Your task to perform on an android device: create a new album in the google photos Image 0: 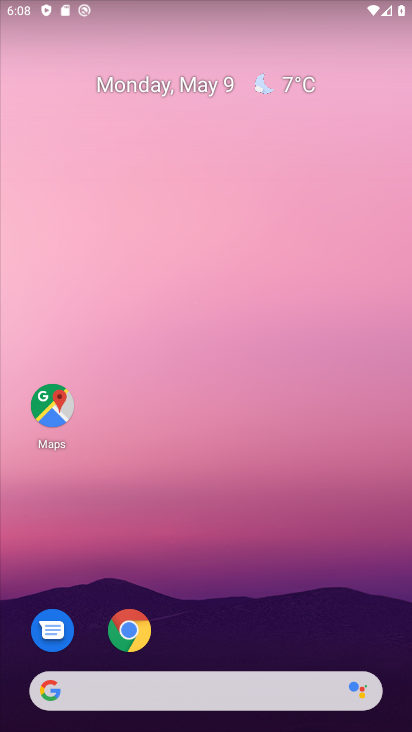
Step 0: drag from (233, 619) to (294, 219)
Your task to perform on an android device: create a new album in the google photos Image 1: 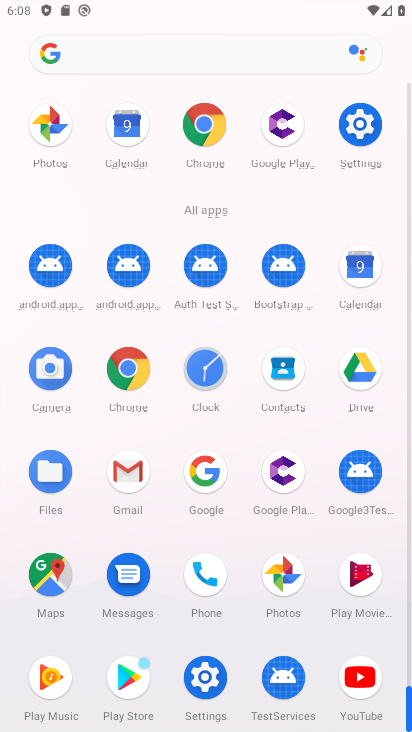
Step 1: click (281, 584)
Your task to perform on an android device: create a new album in the google photos Image 2: 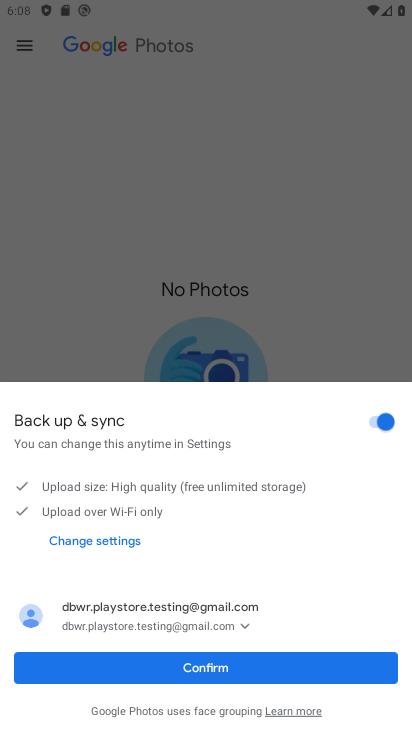
Step 2: click (239, 665)
Your task to perform on an android device: create a new album in the google photos Image 3: 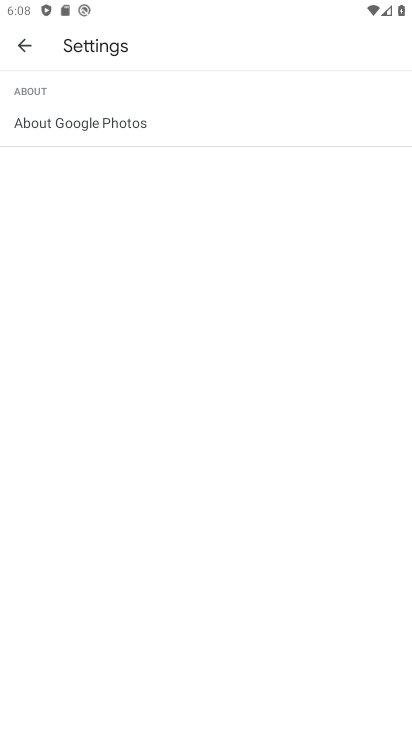
Step 3: click (24, 35)
Your task to perform on an android device: create a new album in the google photos Image 4: 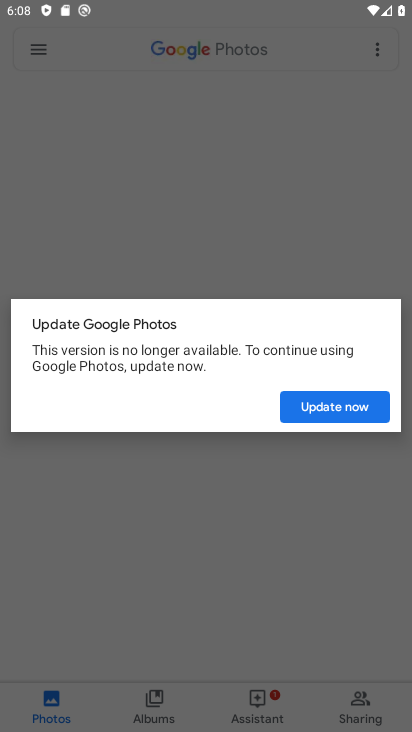
Step 4: click (143, 711)
Your task to perform on an android device: create a new album in the google photos Image 5: 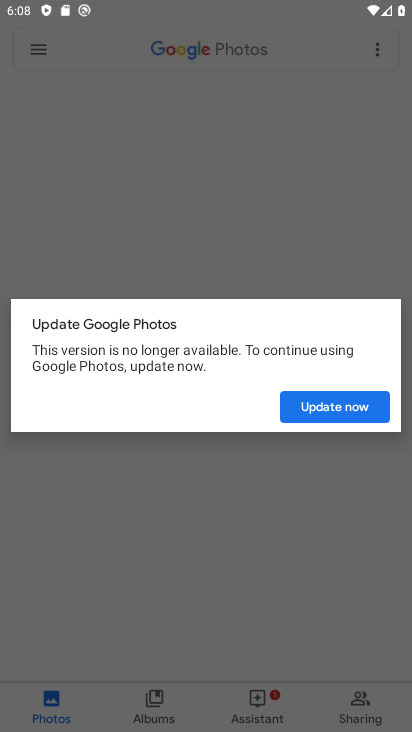
Step 5: click (143, 711)
Your task to perform on an android device: create a new album in the google photos Image 6: 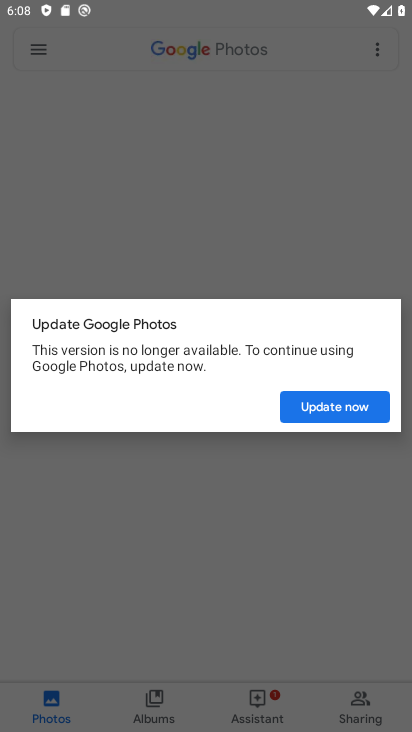
Step 6: click (334, 414)
Your task to perform on an android device: create a new album in the google photos Image 7: 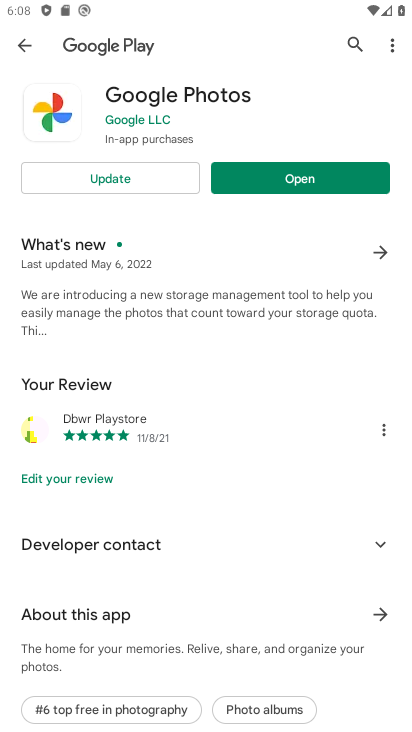
Step 7: click (288, 176)
Your task to perform on an android device: create a new album in the google photos Image 8: 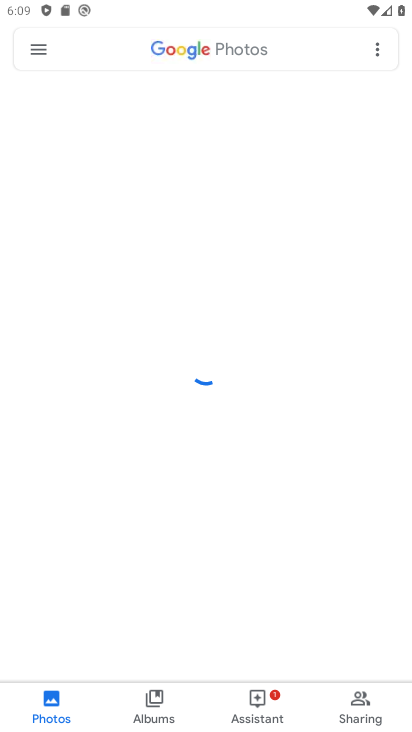
Step 8: click (154, 724)
Your task to perform on an android device: create a new album in the google photos Image 9: 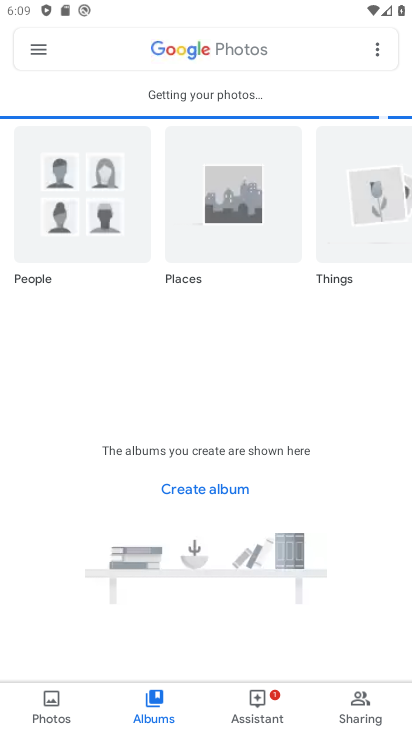
Step 9: click (192, 485)
Your task to perform on an android device: create a new album in the google photos Image 10: 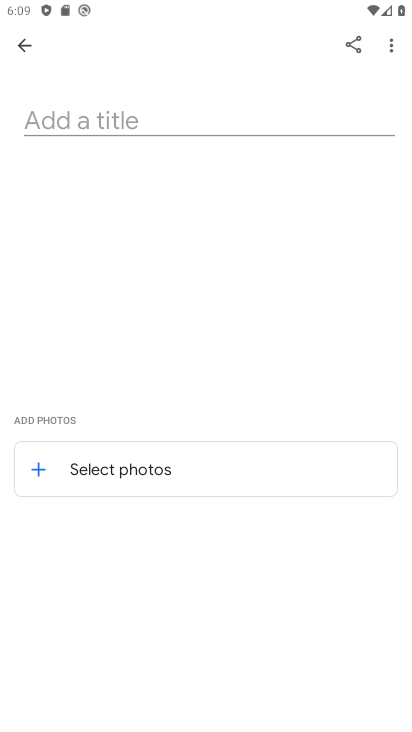
Step 10: click (116, 127)
Your task to perform on an android device: create a new album in the google photos Image 11: 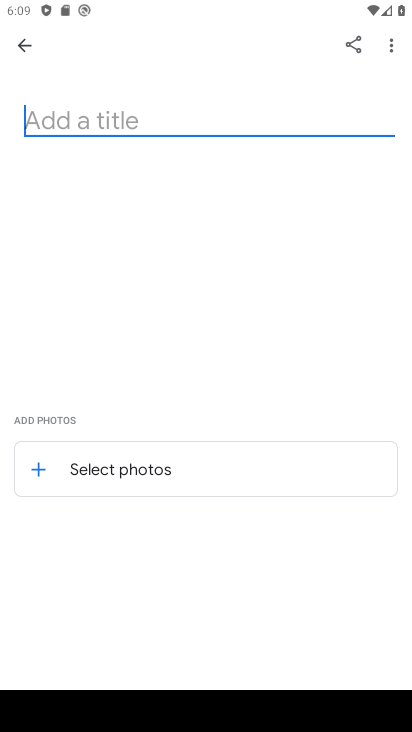
Step 11: type "Ashish"
Your task to perform on an android device: create a new album in the google photos Image 12: 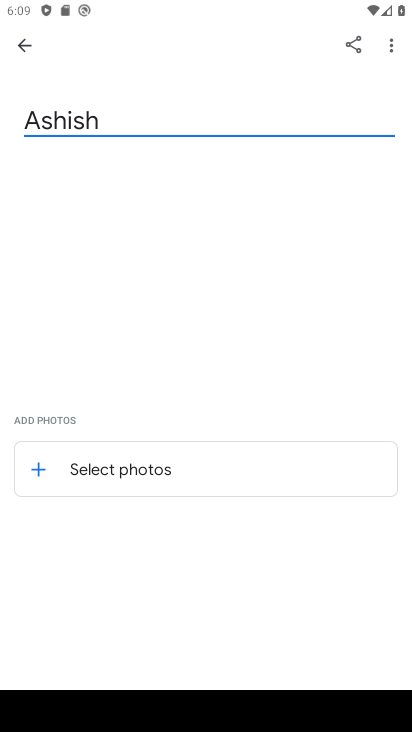
Step 12: click (151, 490)
Your task to perform on an android device: create a new album in the google photos Image 13: 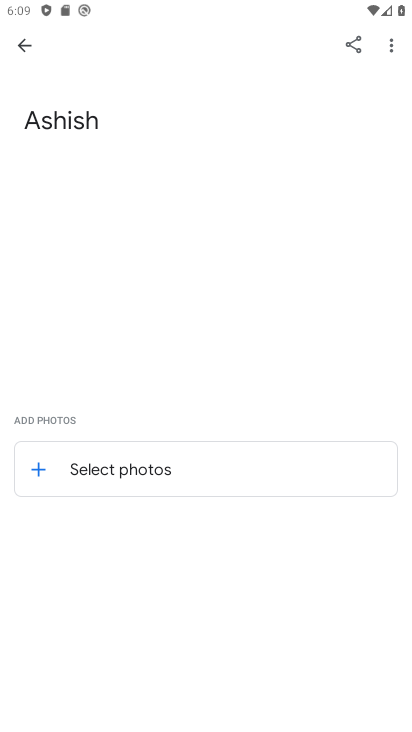
Step 13: click (122, 468)
Your task to perform on an android device: create a new album in the google photos Image 14: 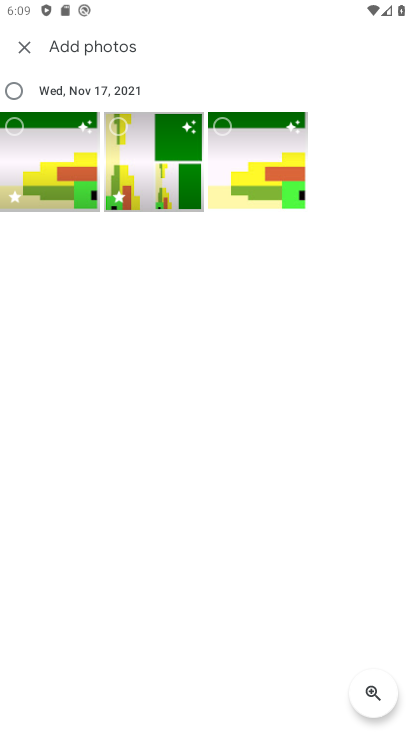
Step 14: click (15, 91)
Your task to perform on an android device: create a new album in the google photos Image 15: 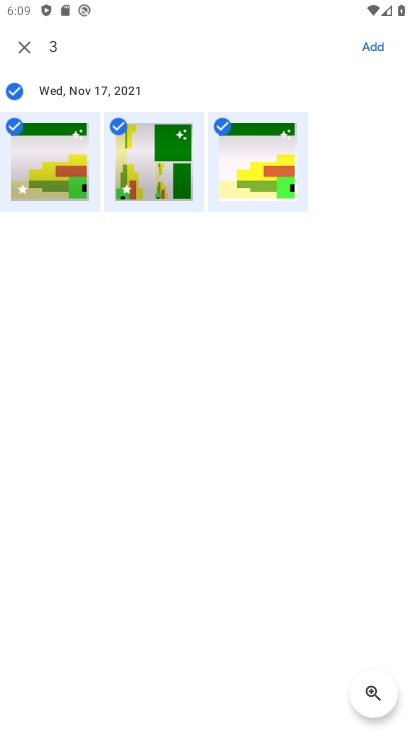
Step 15: click (386, 42)
Your task to perform on an android device: create a new album in the google photos Image 16: 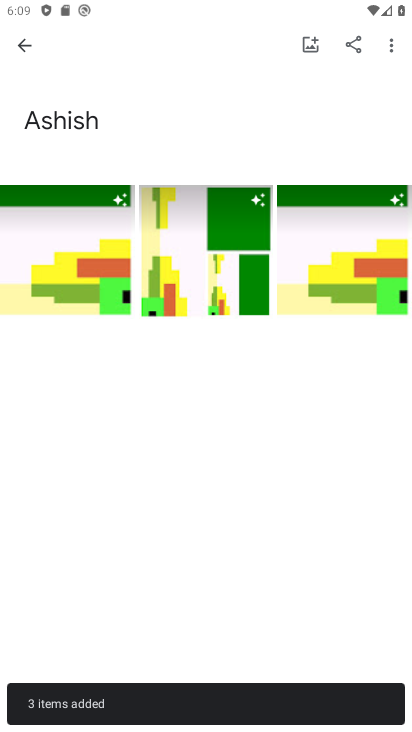
Step 16: task complete